Your task to perform on an android device: Show me productivity apps on the Play Store Image 0: 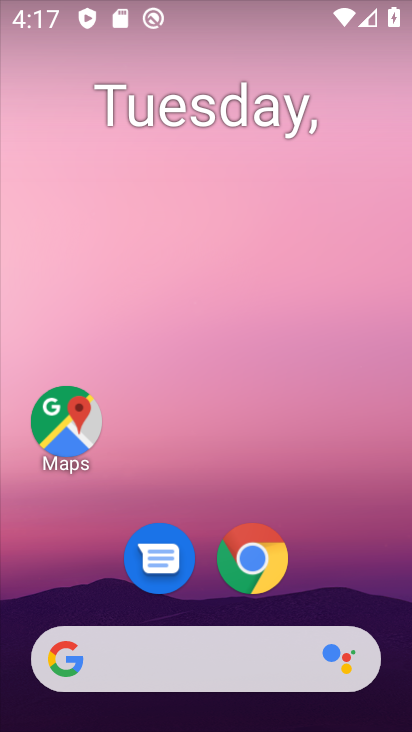
Step 0: drag from (110, 722) to (18, 46)
Your task to perform on an android device: Show me productivity apps on the Play Store Image 1: 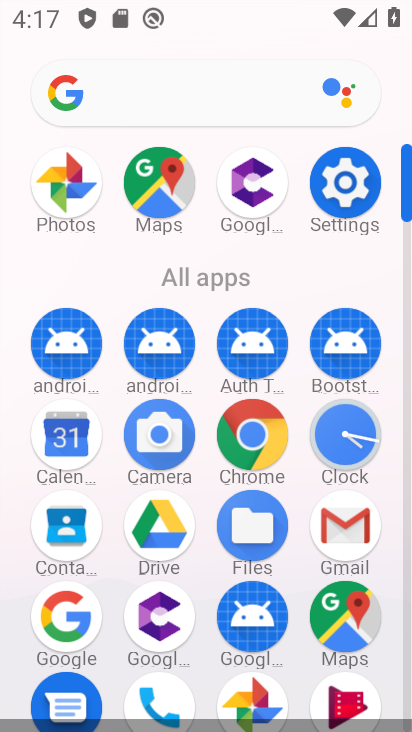
Step 1: drag from (106, 640) to (83, 240)
Your task to perform on an android device: Show me productivity apps on the Play Store Image 2: 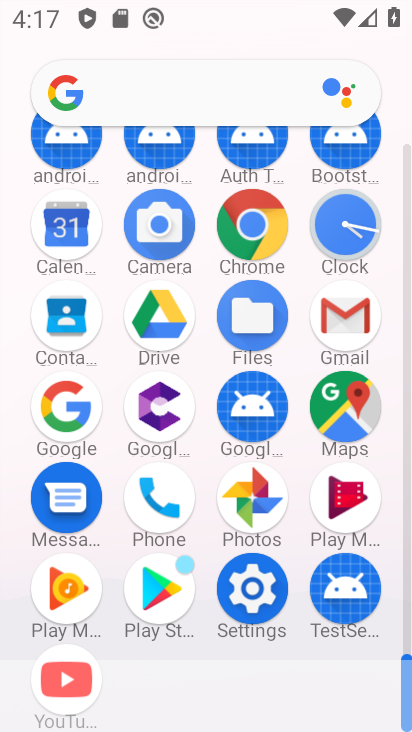
Step 2: click (162, 605)
Your task to perform on an android device: Show me productivity apps on the Play Store Image 3: 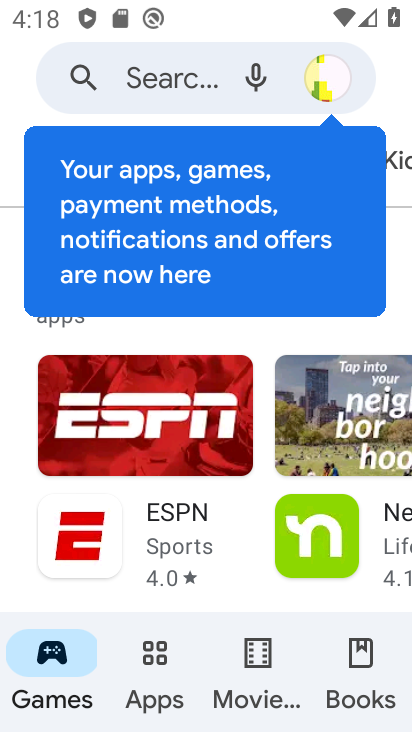
Step 3: click (399, 265)
Your task to perform on an android device: Show me productivity apps on the Play Store Image 4: 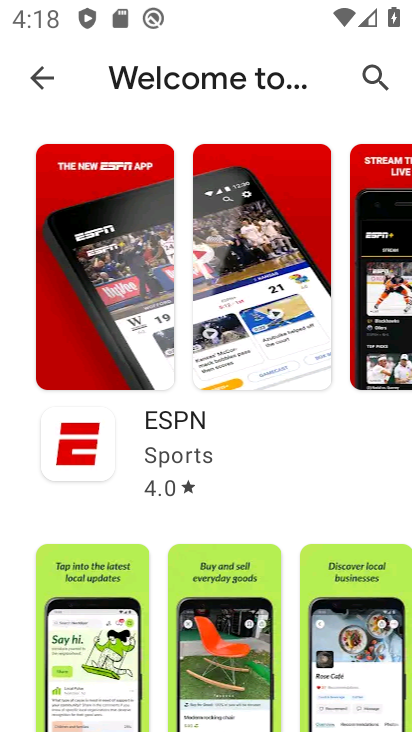
Step 4: click (29, 82)
Your task to perform on an android device: Show me productivity apps on the Play Store Image 5: 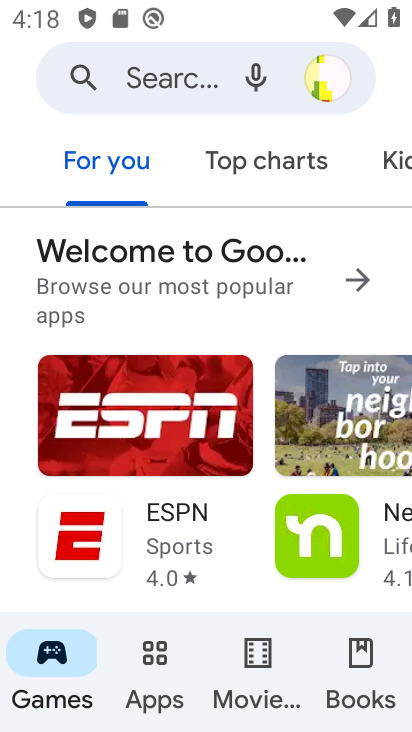
Step 5: click (139, 677)
Your task to perform on an android device: Show me productivity apps on the Play Store Image 6: 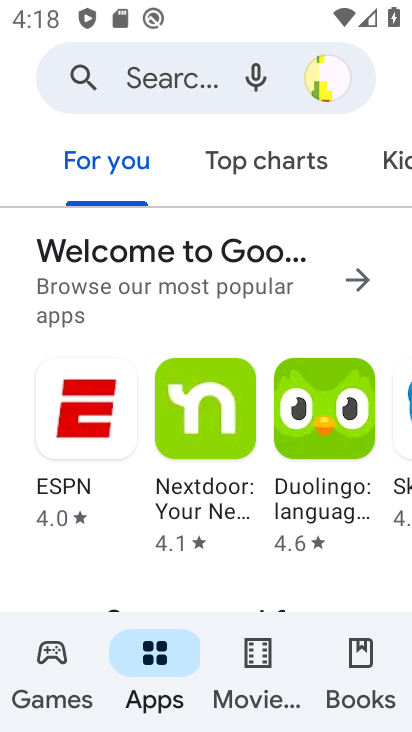
Step 6: drag from (378, 174) to (72, 174)
Your task to perform on an android device: Show me productivity apps on the Play Store Image 7: 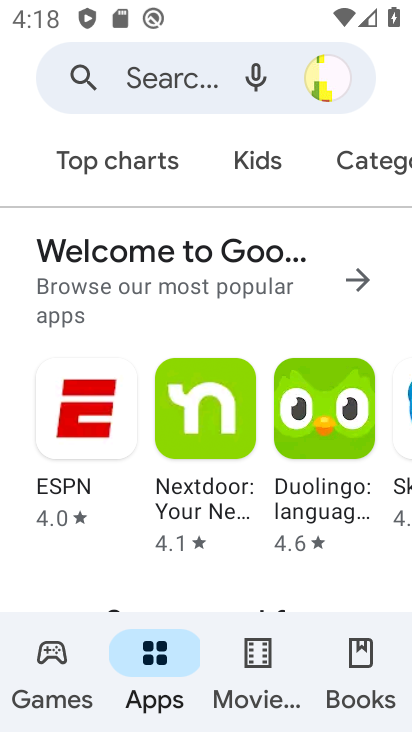
Step 7: click (378, 165)
Your task to perform on an android device: Show me productivity apps on the Play Store Image 8: 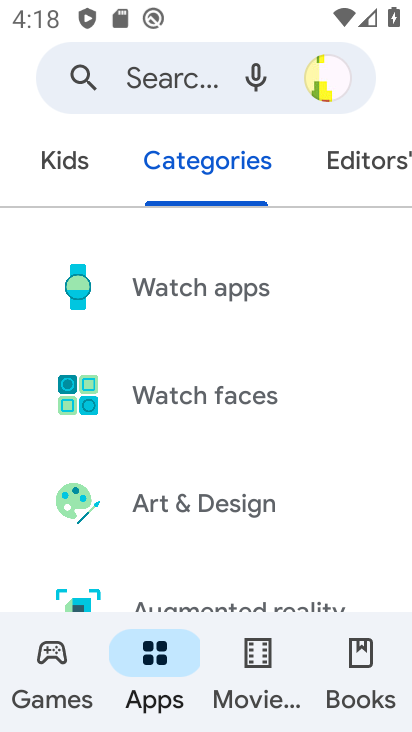
Step 8: drag from (261, 451) to (210, 63)
Your task to perform on an android device: Show me productivity apps on the Play Store Image 9: 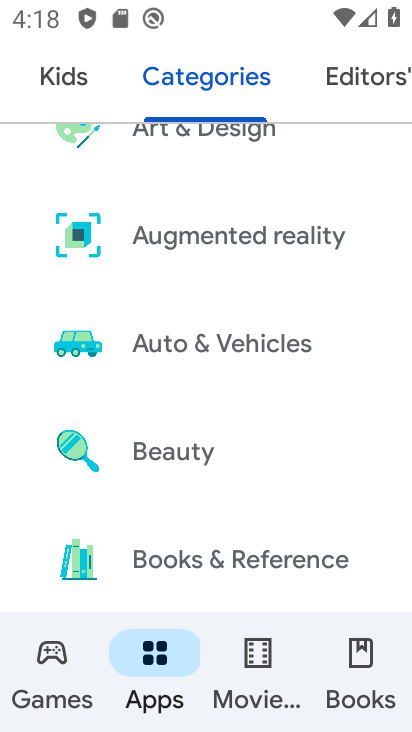
Step 9: drag from (239, 406) to (218, 34)
Your task to perform on an android device: Show me productivity apps on the Play Store Image 10: 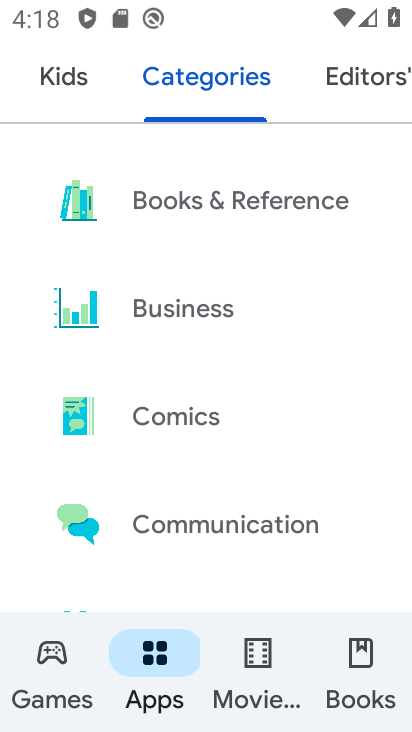
Step 10: drag from (161, 545) to (137, 198)
Your task to perform on an android device: Show me productivity apps on the Play Store Image 11: 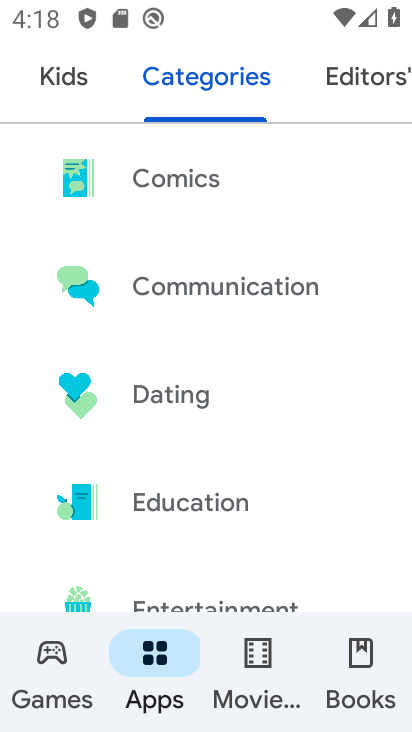
Step 11: drag from (132, 562) to (157, 230)
Your task to perform on an android device: Show me productivity apps on the Play Store Image 12: 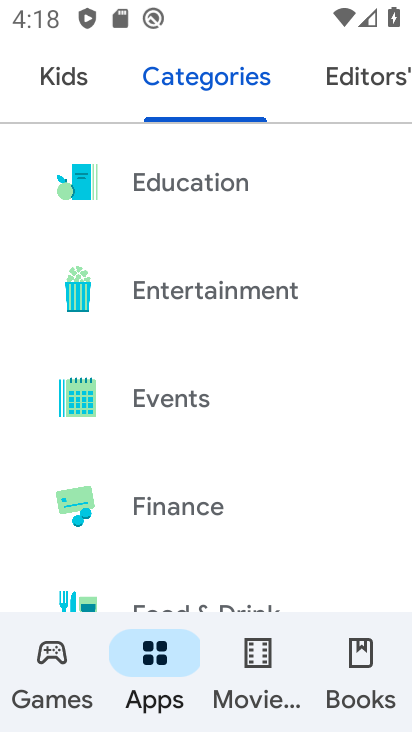
Step 12: drag from (197, 553) to (193, 117)
Your task to perform on an android device: Show me productivity apps on the Play Store Image 13: 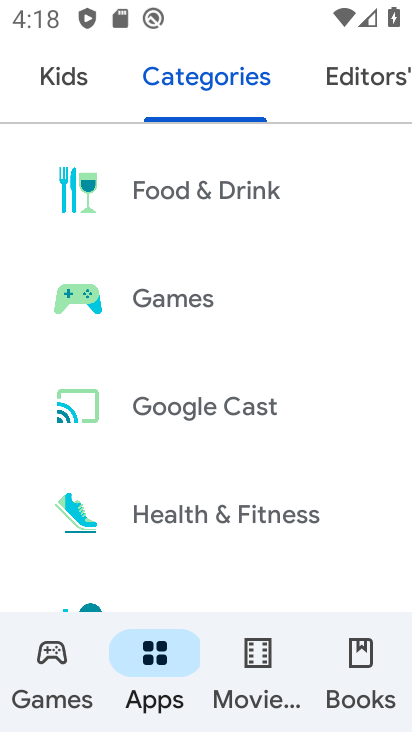
Step 13: drag from (208, 551) to (228, 261)
Your task to perform on an android device: Show me productivity apps on the Play Store Image 14: 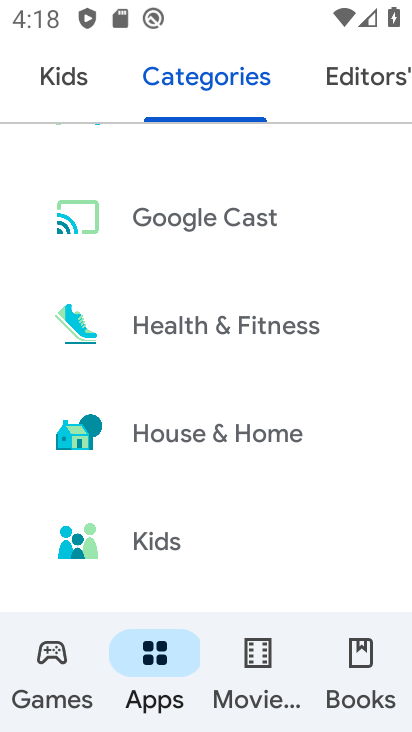
Step 14: drag from (197, 546) to (167, 144)
Your task to perform on an android device: Show me productivity apps on the Play Store Image 15: 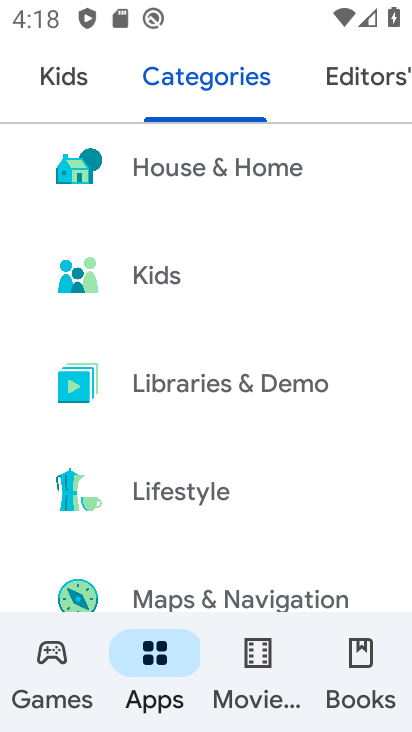
Step 15: drag from (232, 539) to (236, 202)
Your task to perform on an android device: Show me productivity apps on the Play Store Image 16: 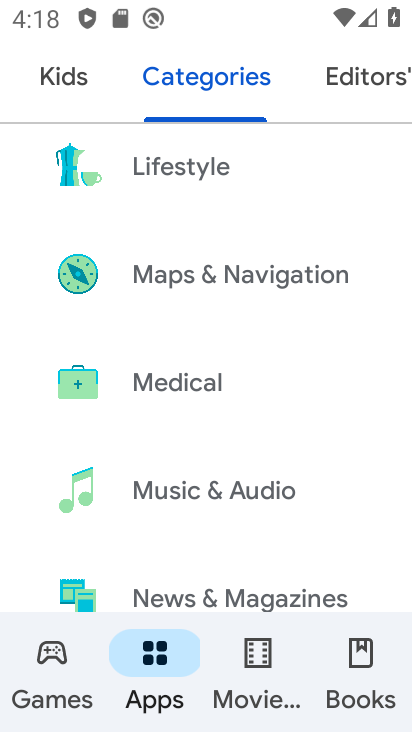
Step 16: drag from (293, 553) to (297, 137)
Your task to perform on an android device: Show me productivity apps on the Play Store Image 17: 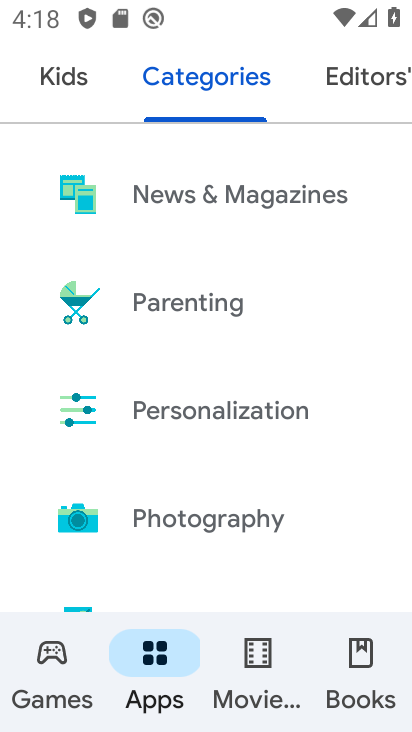
Step 17: drag from (222, 548) to (196, 235)
Your task to perform on an android device: Show me productivity apps on the Play Store Image 18: 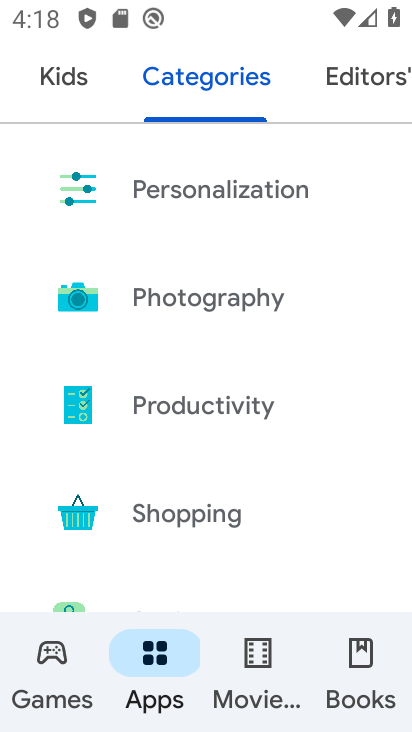
Step 18: click (195, 405)
Your task to perform on an android device: Show me productivity apps on the Play Store Image 19: 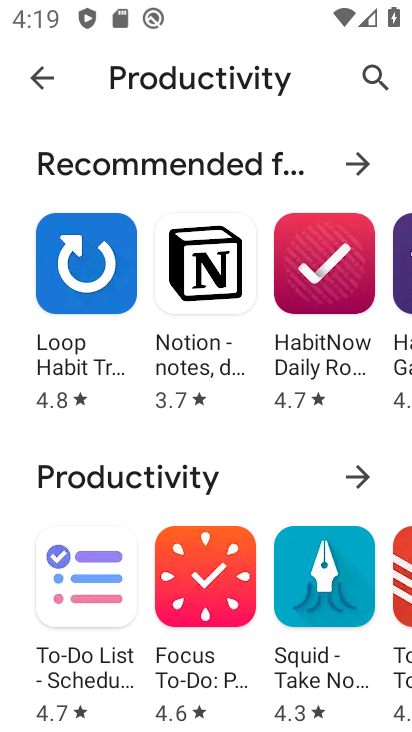
Step 19: task complete